Your task to perform on an android device: Open Google Maps and go to "Timeline" Image 0: 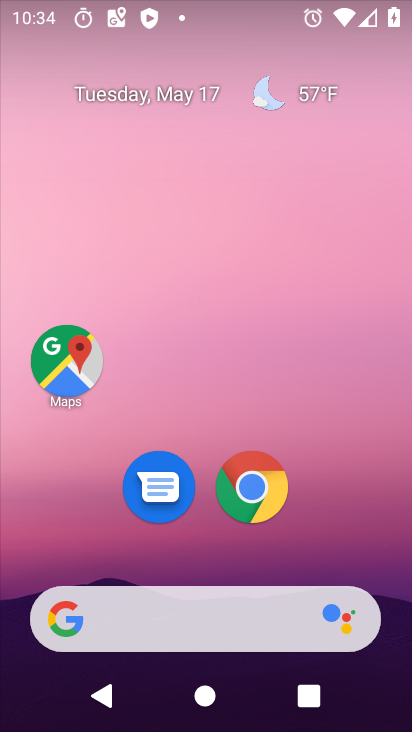
Step 0: drag from (214, 727) to (226, 121)
Your task to perform on an android device: Open Google Maps and go to "Timeline" Image 1: 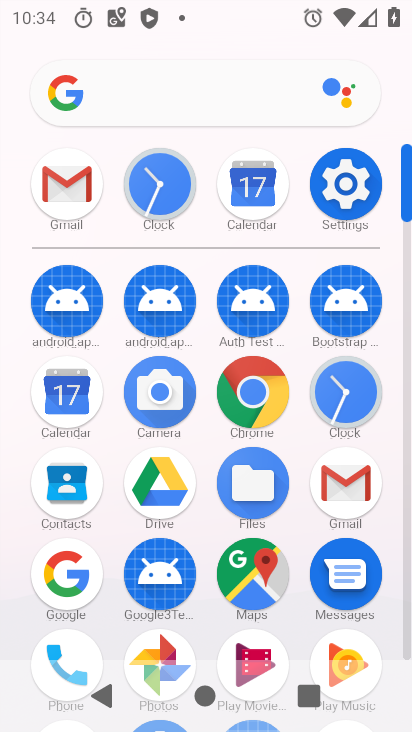
Step 1: click (255, 575)
Your task to perform on an android device: Open Google Maps and go to "Timeline" Image 2: 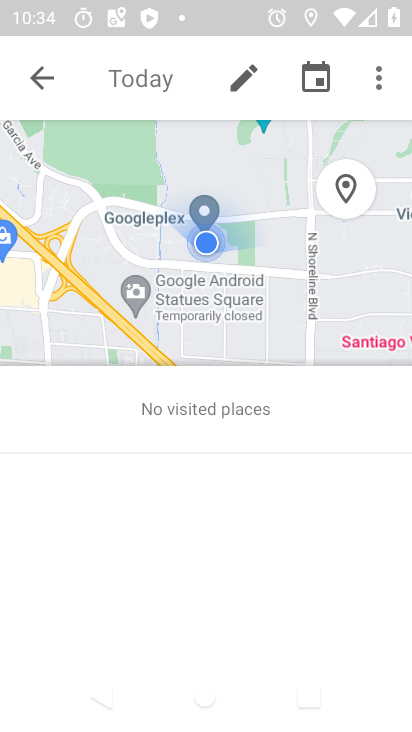
Step 2: task complete